Your task to perform on an android device: change the clock display to show seconds Image 0: 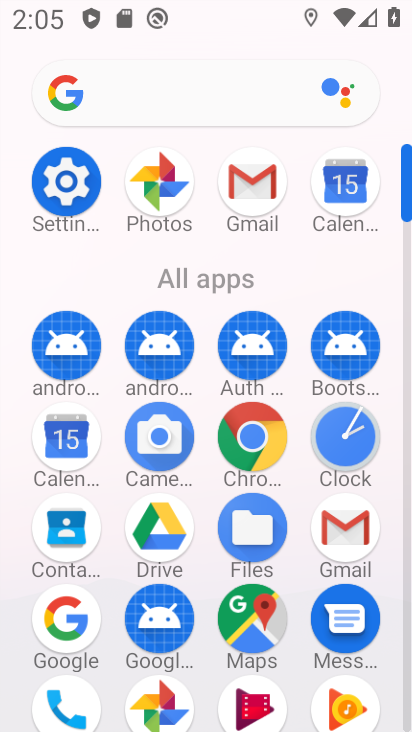
Step 0: click (365, 433)
Your task to perform on an android device: change the clock display to show seconds Image 1: 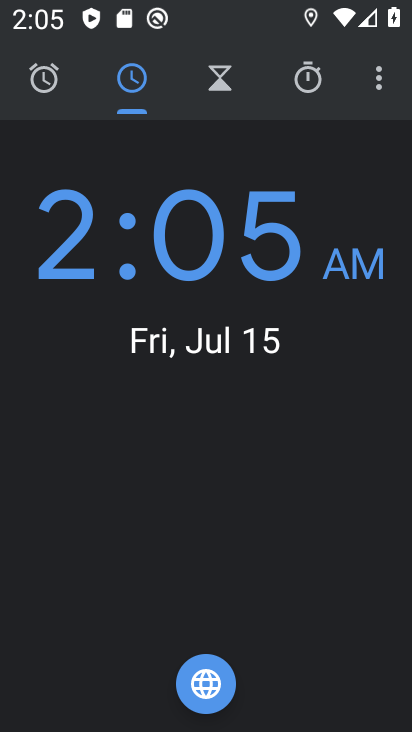
Step 1: click (380, 88)
Your task to perform on an android device: change the clock display to show seconds Image 2: 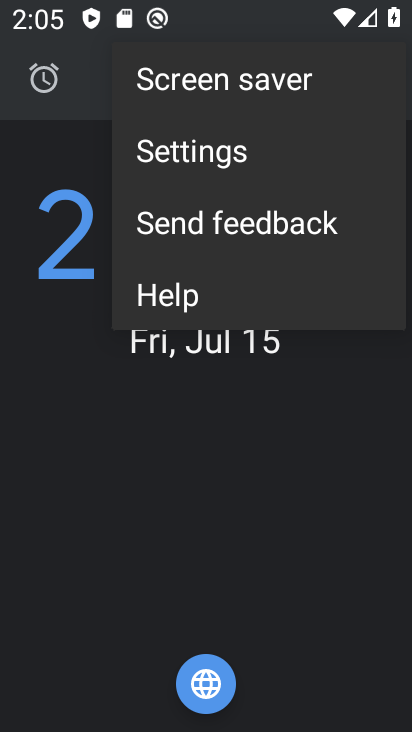
Step 2: click (271, 156)
Your task to perform on an android device: change the clock display to show seconds Image 3: 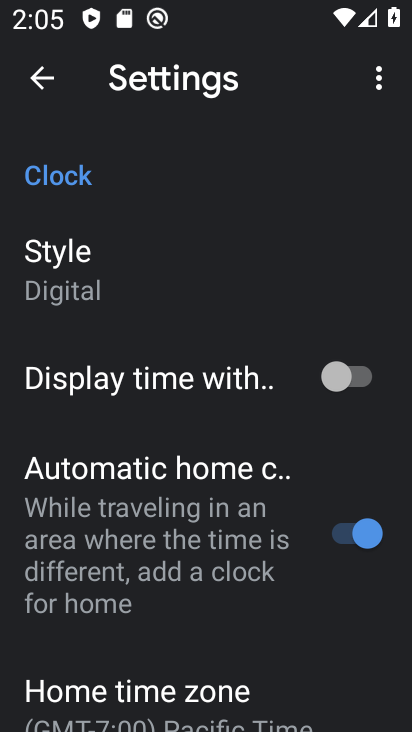
Step 3: click (329, 373)
Your task to perform on an android device: change the clock display to show seconds Image 4: 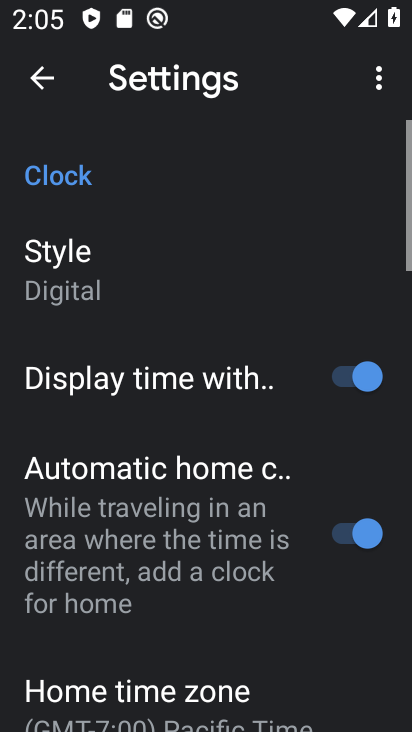
Step 4: task complete